Your task to perform on an android device: Is it going to rain this weekend? Image 0: 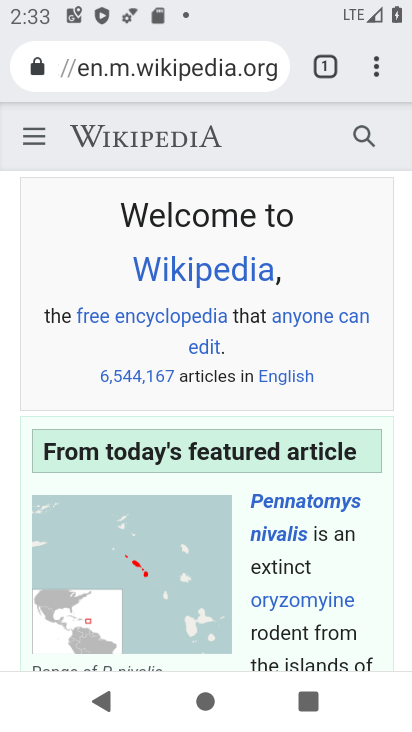
Step 0: press home button
Your task to perform on an android device: Is it going to rain this weekend? Image 1: 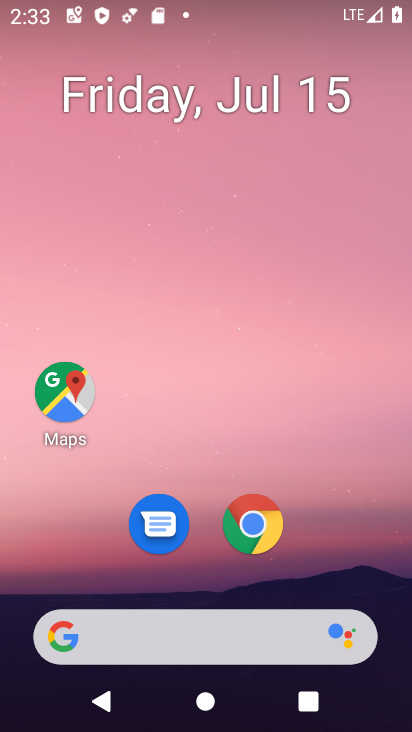
Step 1: click (178, 633)
Your task to perform on an android device: Is it going to rain this weekend? Image 2: 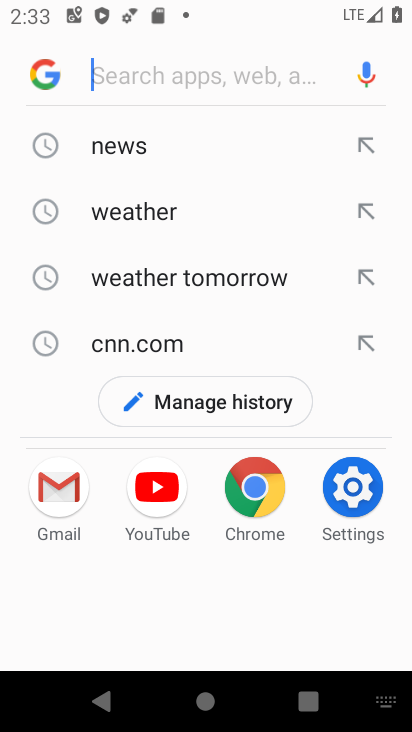
Step 2: click (134, 214)
Your task to perform on an android device: Is it going to rain this weekend? Image 3: 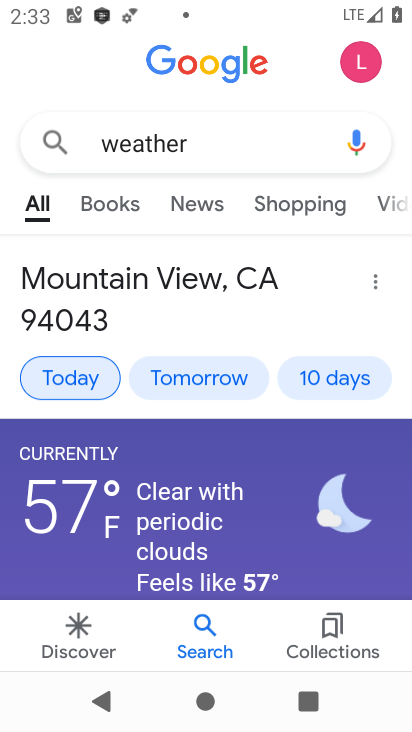
Step 3: click (341, 376)
Your task to perform on an android device: Is it going to rain this weekend? Image 4: 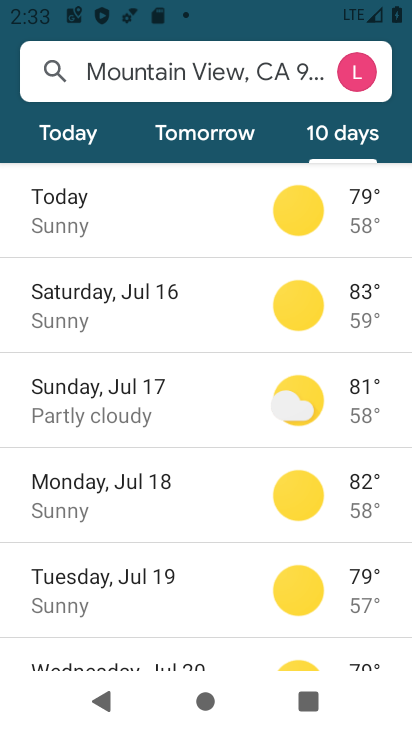
Step 4: click (143, 301)
Your task to perform on an android device: Is it going to rain this weekend? Image 5: 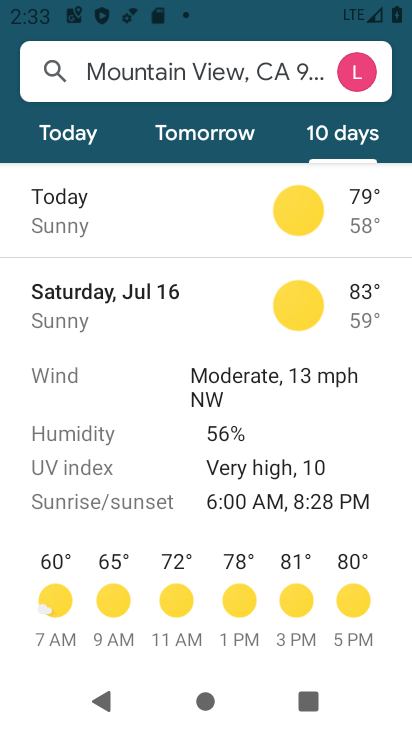
Step 5: task complete